Your task to perform on an android device: change the clock display to show seconds Image 0: 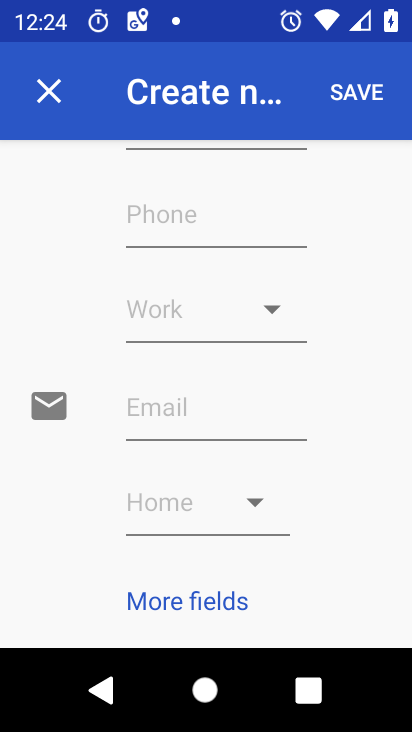
Step 0: press home button
Your task to perform on an android device: change the clock display to show seconds Image 1: 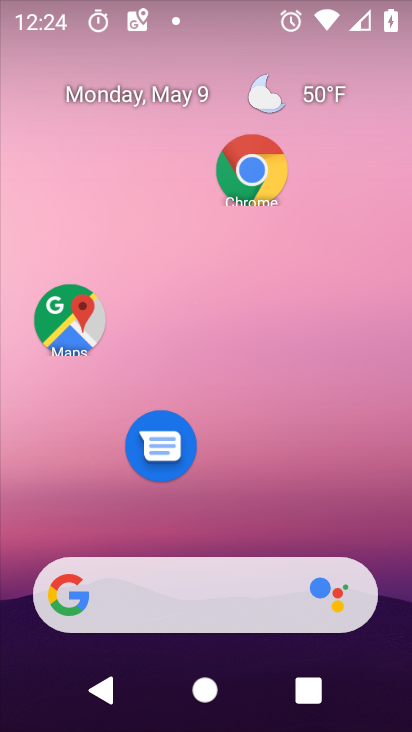
Step 1: drag from (247, 492) to (251, 84)
Your task to perform on an android device: change the clock display to show seconds Image 2: 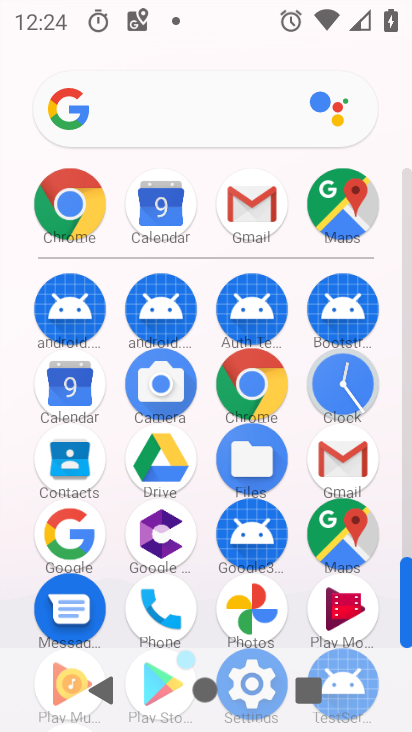
Step 2: click (325, 387)
Your task to perform on an android device: change the clock display to show seconds Image 3: 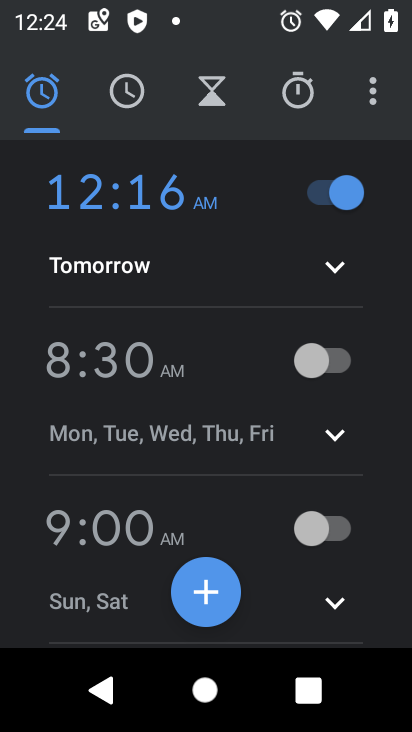
Step 3: click (368, 93)
Your task to perform on an android device: change the clock display to show seconds Image 4: 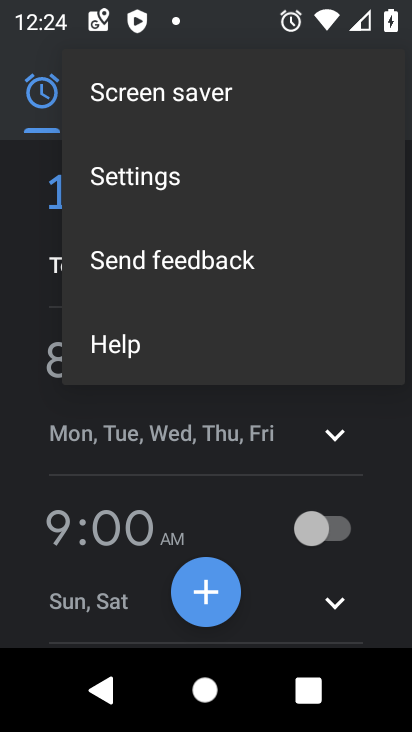
Step 4: click (153, 165)
Your task to perform on an android device: change the clock display to show seconds Image 5: 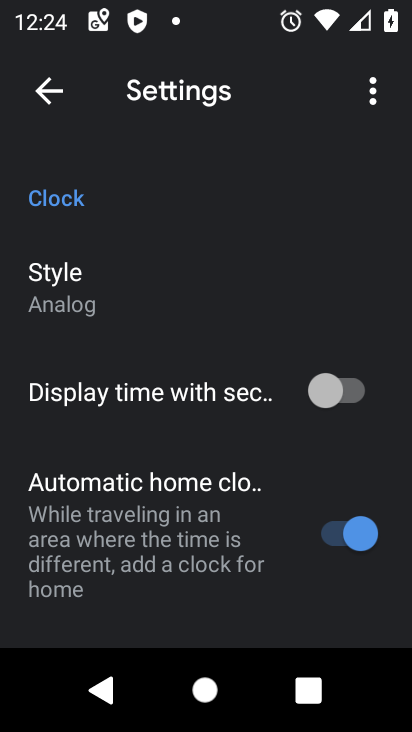
Step 5: click (327, 394)
Your task to perform on an android device: change the clock display to show seconds Image 6: 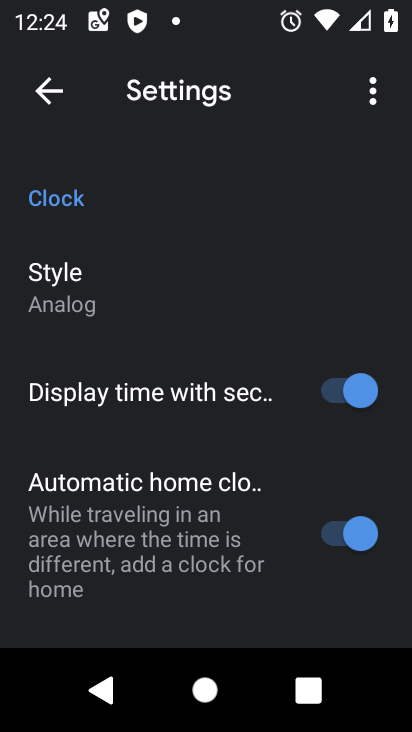
Step 6: task complete